Your task to perform on an android device: Open Yahoo.com Image 0: 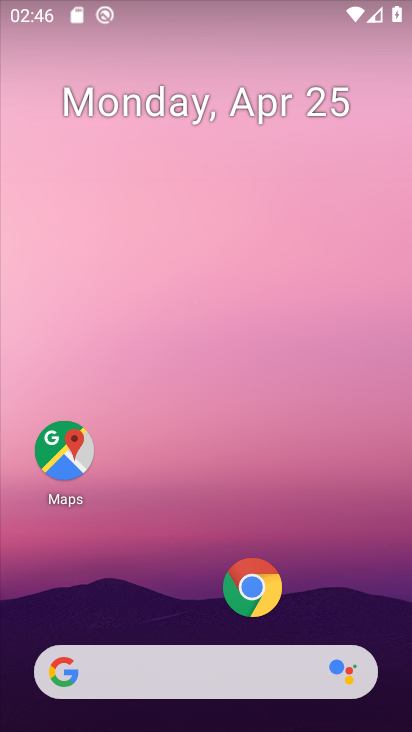
Step 0: drag from (202, 621) to (205, 0)
Your task to perform on an android device: Open Yahoo.com Image 1: 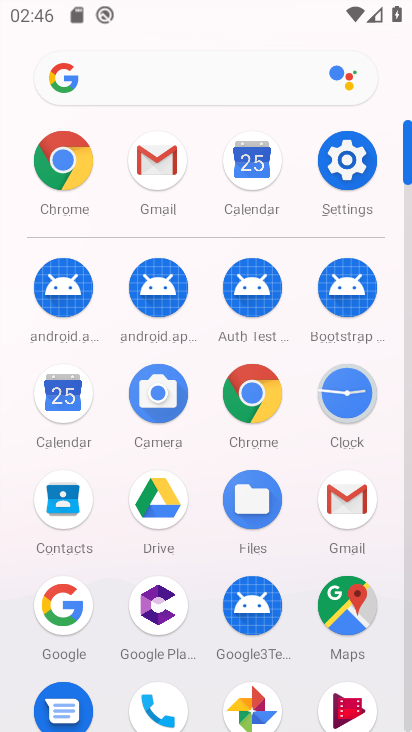
Step 1: click (251, 387)
Your task to perform on an android device: Open Yahoo.com Image 2: 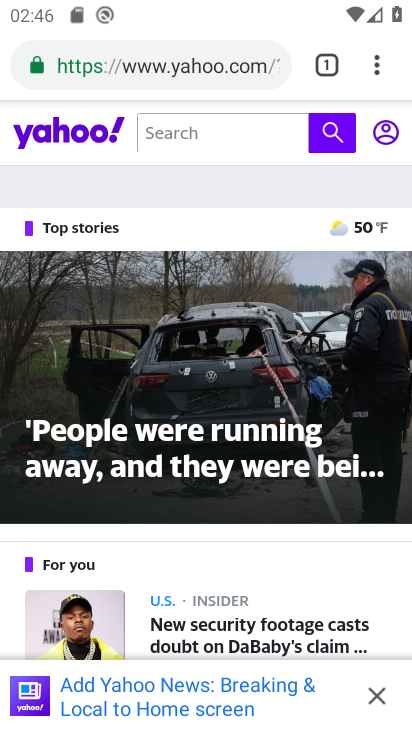
Step 2: click (371, 699)
Your task to perform on an android device: Open Yahoo.com Image 3: 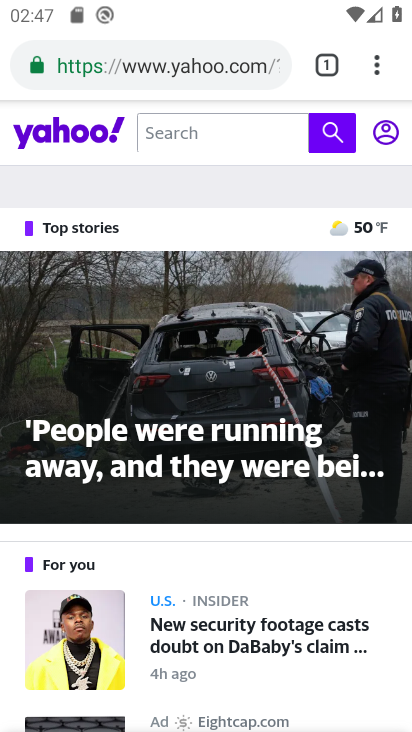
Step 3: click (376, 67)
Your task to perform on an android device: Open Yahoo.com Image 4: 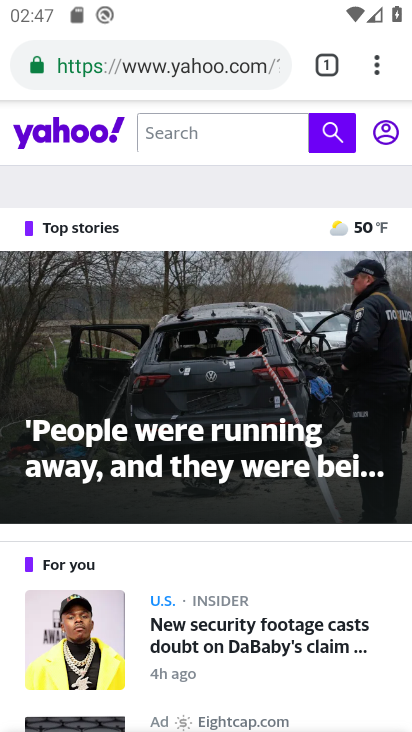
Step 4: click (377, 62)
Your task to perform on an android device: Open Yahoo.com Image 5: 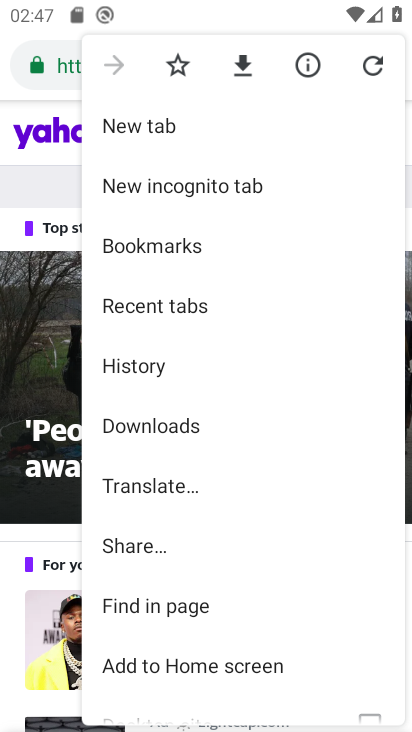
Step 5: click (47, 688)
Your task to perform on an android device: Open Yahoo.com Image 6: 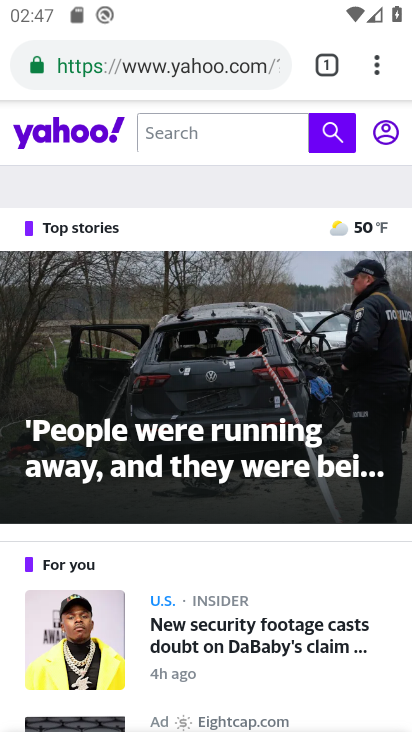
Step 6: task complete